Your task to perform on an android device: Open the phone app and click the voicemail tab. Image 0: 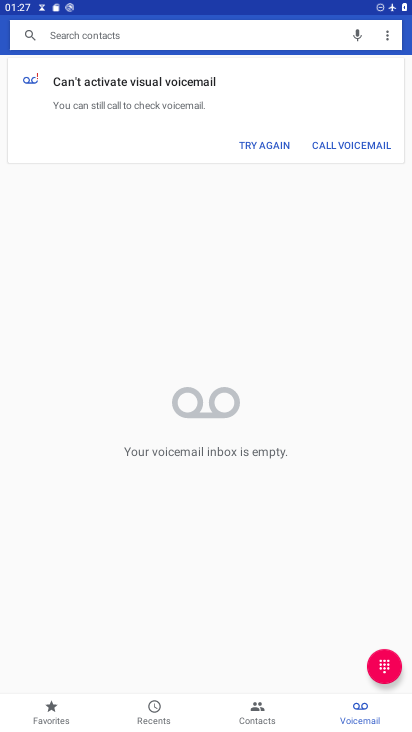
Step 0: click (354, 703)
Your task to perform on an android device: Open the phone app and click the voicemail tab. Image 1: 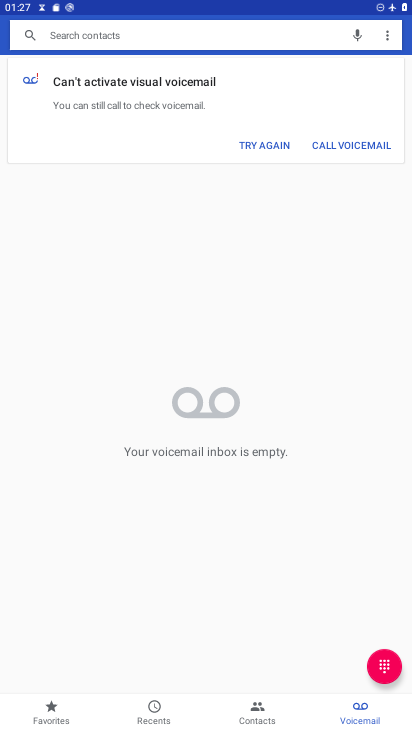
Step 1: task complete